Your task to perform on an android device: turn off improve location accuracy Image 0: 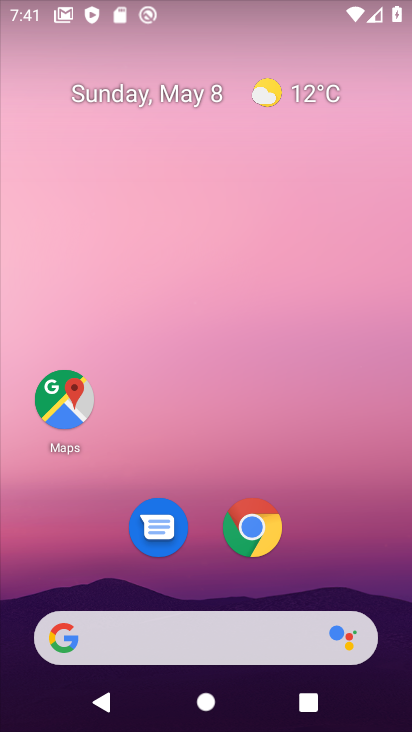
Step 0: drag from (348, 521) to (349, 74)
Your task to perform on an android device: turn off improve location accuracy Image 1: 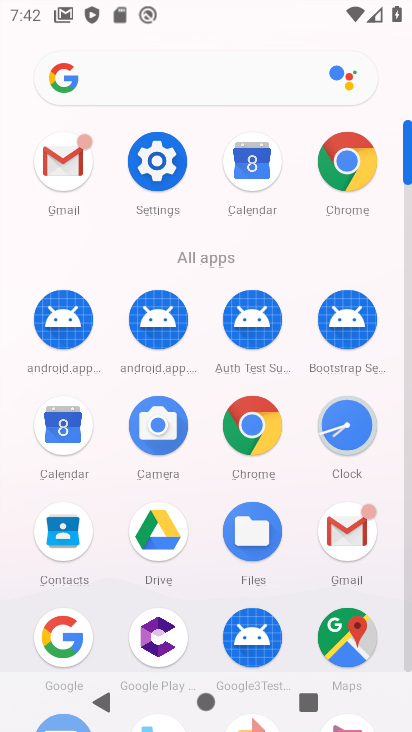
Step 1: click (137, 163)
Your task to perform on an android device: turn off improve location accuracy Image 2: 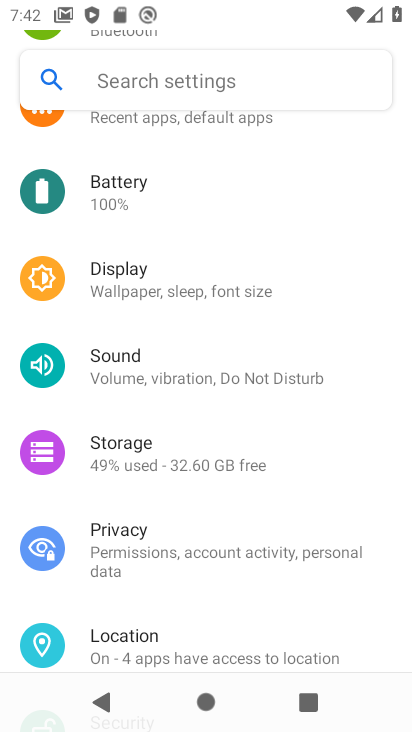
Step 2: drag from (190, 429) to (169, 302)
Your task to perform on an android device: turn off improve location accuracy Image 3: 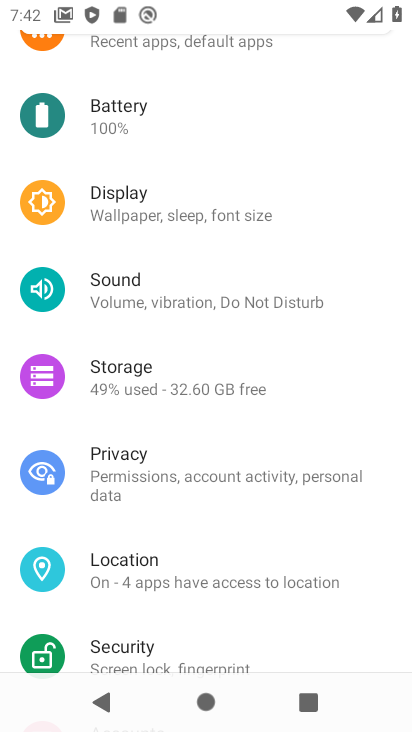
Step 3: click (120, 598)
Your task to perform on an android device: turn off improve location accuracy Image 4: 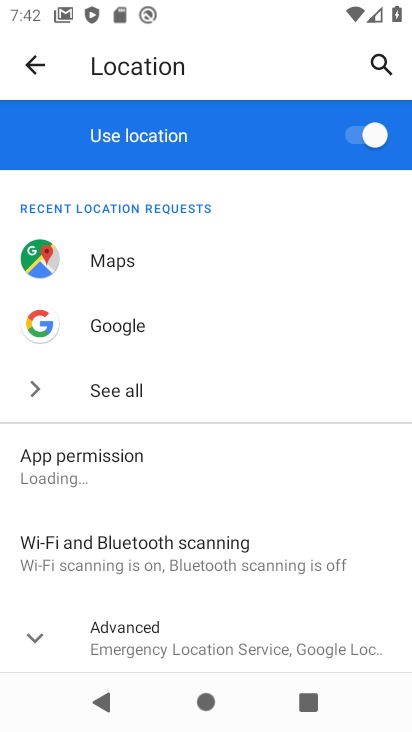
Step 4: drag from (124, 596) to (186, 340)
Your task to perform on an android device: turn off improve location accuracy Image 5: 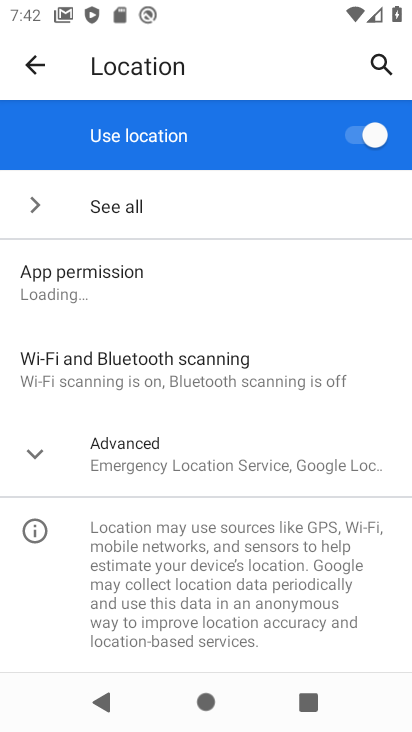
Step 5: click (152, 469)
Your task to perform on an android device: turn off improve location accuracy Image 6: 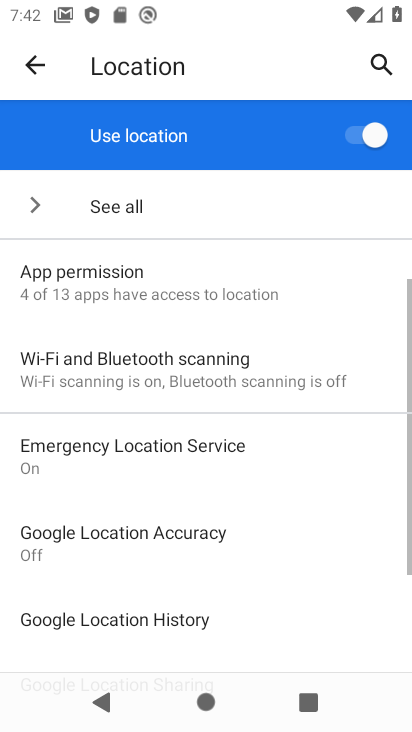
Step 6: drag from (138, 564) to (153, 344)
Your task to perform on an android device: turn off improve location accuracy Image 7: 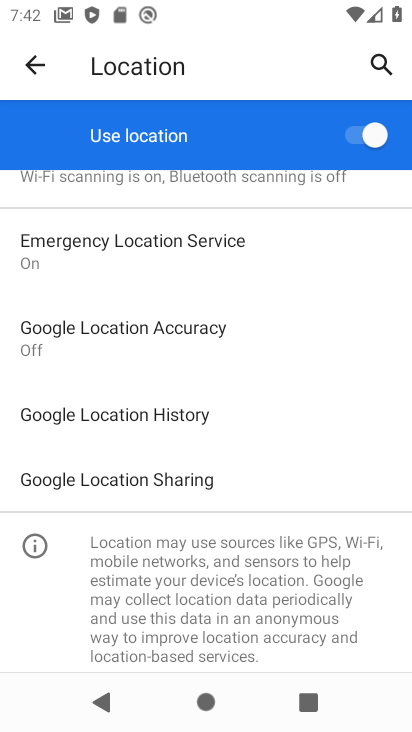
Step 7: click (153, 344)
Your task to perform on an android device: turn off improve location accuracy Image 8: 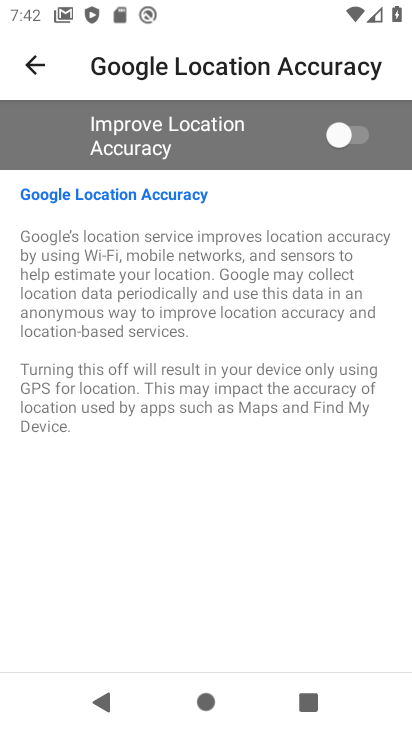
Step 8: task complete